Your task to perform on an android device: Clear the cart on amazon.com. Search for bose soundlink on amazon.com, select the first entry, add it to the cart, then select checkout. Image 0: 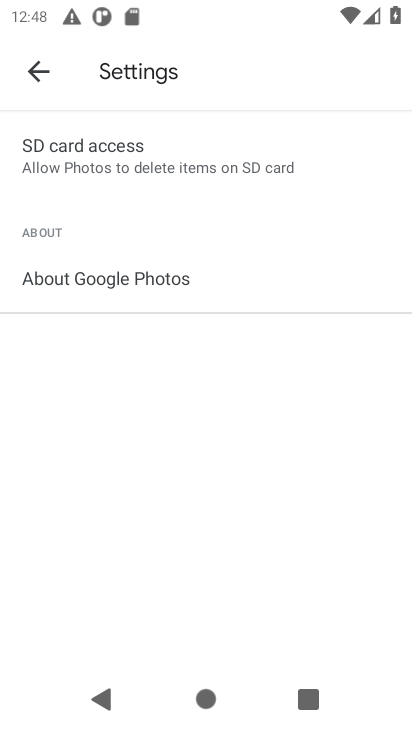
Step 0: press home button
Your task to perform on an android device: Clear the cart on amazon.com. Search for bose soundlink on amazon.com, select the first entry, add it to the cart, then select checkout. Image 1: 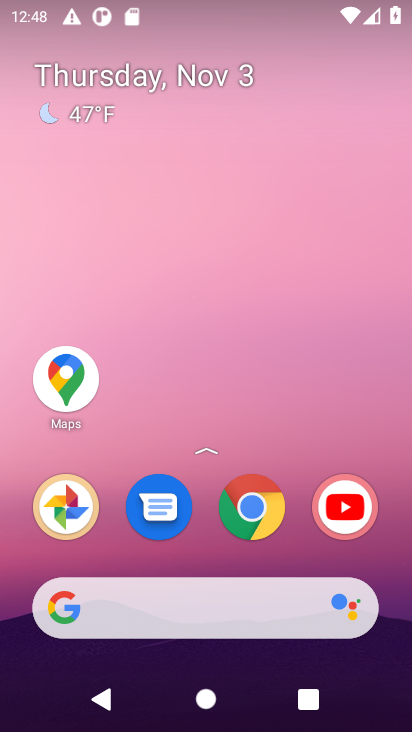
Step 1: click (192, 591)
Your task to perform on an android device: Clear the cart on amazon.com. Search for bose soundlink on amazon.com, select the first entry, add it to the cart, then select checkout. Image 2: 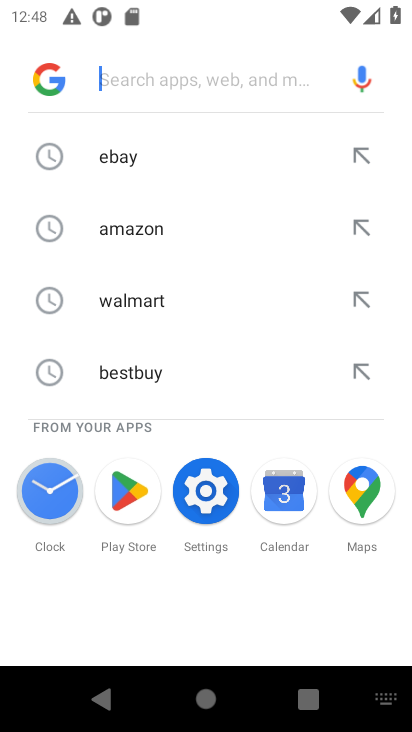
Step 2: type "amazon"
Your task to perform on an android device: Clear the cart on amazon.com. Search for bose soundlink on amazon.com, select the first entry, add it to the cart, then select checkout. Image 3: 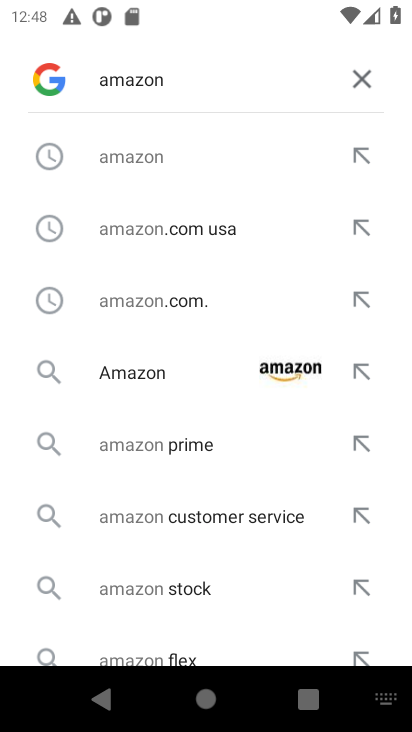
Step 3: click (172, 137)
Your task to perform on an android device: Clear the cart on amazon.com. Search for bose soundlink on amazon.com, select the first entry, add it to the cart, then select checkout. Image 4: 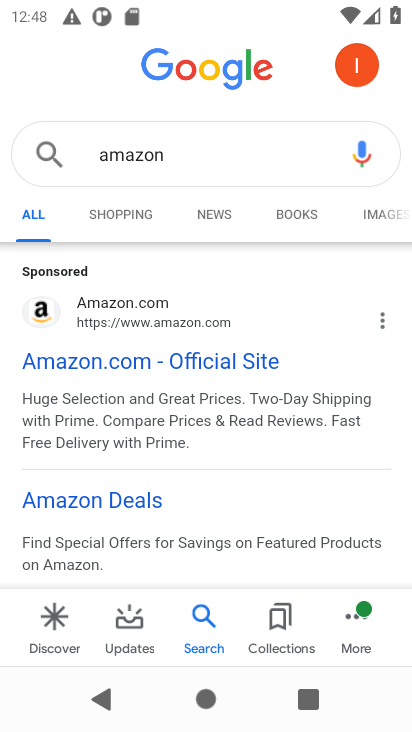
Step 4: click (145, 360)
Your task to perform on an android device: Clear the cart on amazon.com. Search for bose soundlink on amazon.com, select the first entry, add it to the cart, then select checkout. Image 5: 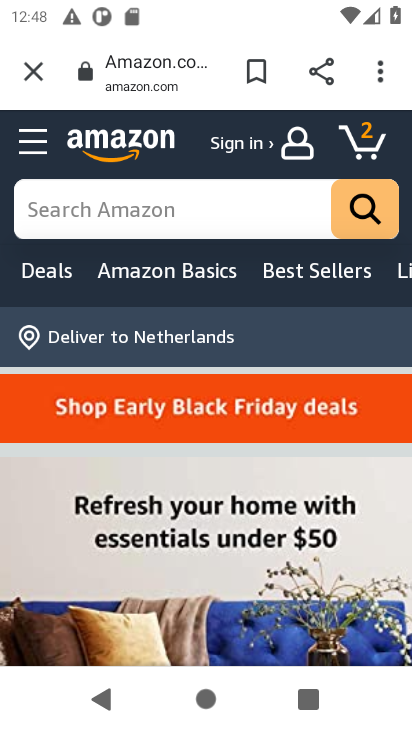
Step 5: click (107, 224)
Your task to perform on an android device: Clear the cart on amazon.com. Search for bose soundlink on amazon.com, select the first entry, add it to the cart, then select checkout. Image 6: 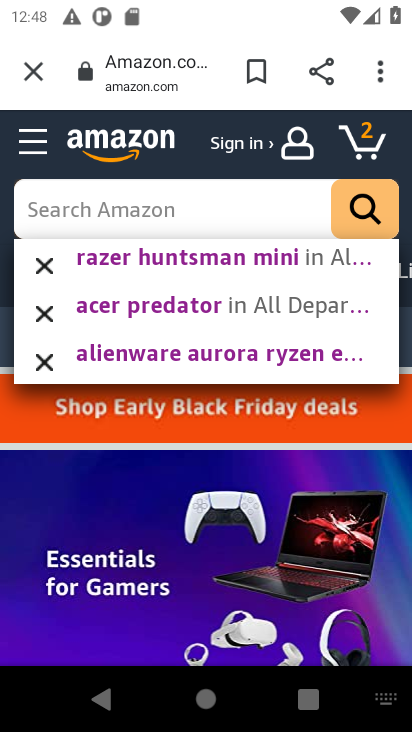
Step 6: type "bose soundllink"
Your task to perform on an android device: Clear the cart on amazon.com. Search for bose soundlink on amazon.com, select the first entry, add it to the cart, then select checkout. Image 7: 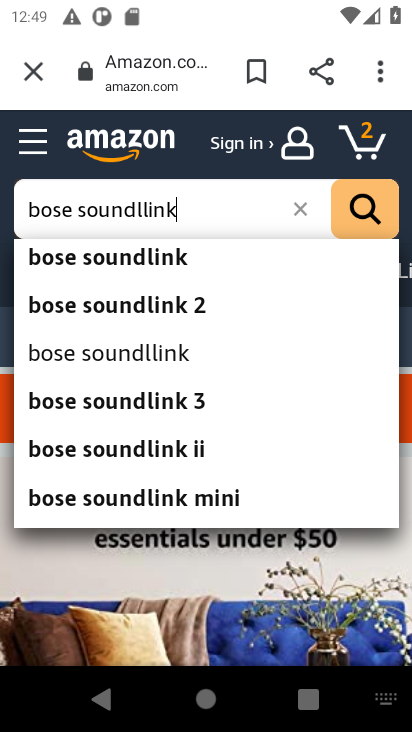
Step 7: click (102, 258)
Your task to perform on an android device: Clear the cart on amazon.com. Search for bose soundlink on amazon.com, select the first entry, add it to the cart, then select checkout. Image 8: 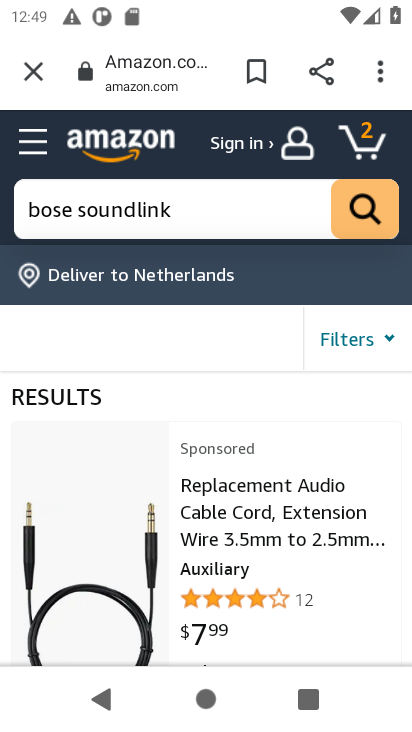
Step 8: click (237, 507)
Your task to perform on an android device: Clear the cart on amazon.com. Search for bose soundlink on amazon.com, select the first entry, add it to the cart, then select checkout. Image 9: 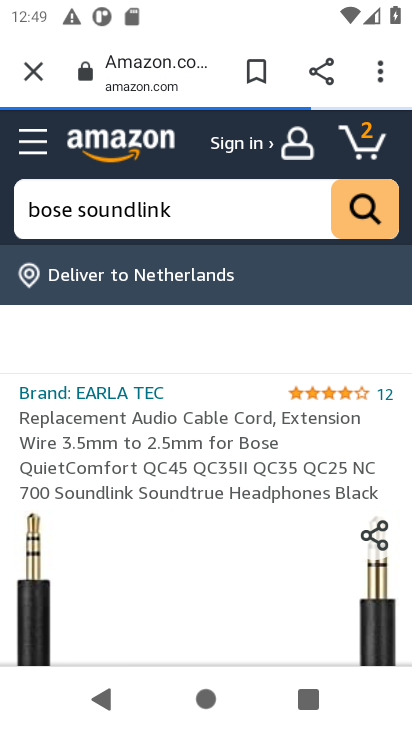
Step 9: drag from (237, 522) to (237, 107)
Your task to perform on an android device: Clear the cart on amazon.com. Search for bose soundlink on amazon.com, select the first entry, add it to the cart, then select checkout. Image 10: 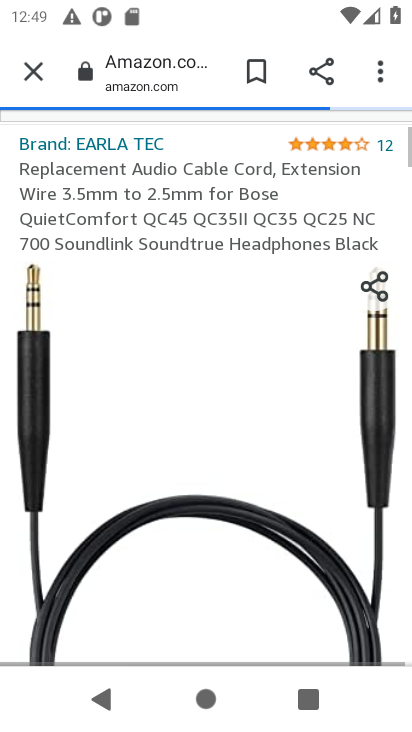
Step 10: drag from (256, 507) to (260, 110)
Your task to perform on an android device: Clear the cart on amazon.com. Search for bose soundlink on amazon.com, select the first entry, add it to the cart, then select checkout. Image 11: 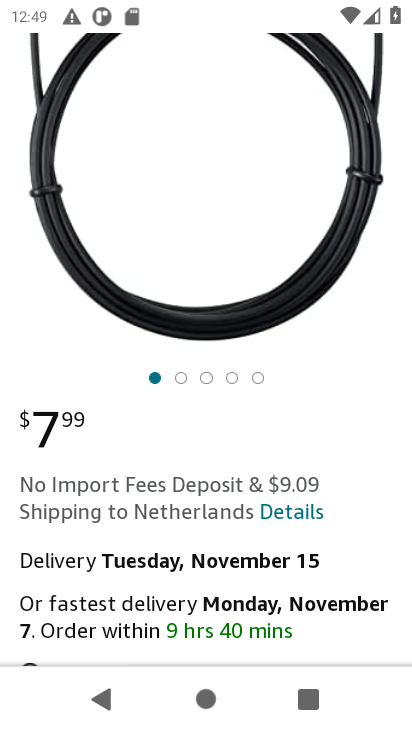
Step 11: drag from (265, 473) to (271, 95)
Your task to perform on an android device: Clear the cart on amazon.com. Search for bose soundlink on amazon.com, select the first entry, add it to the cart, then select checkout. Image 12: 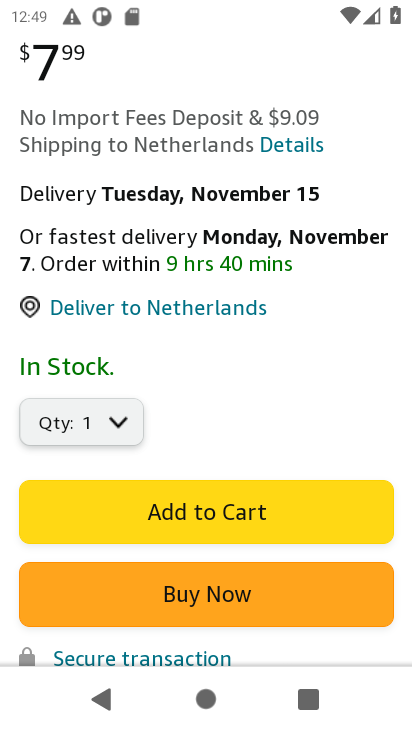
Step 12: click (262, 524)
Your task to perform on an android device: Clear the cart on amazon.com. Search for bose soundlink on amazon.com, select the first entry, add it to the cart, then select checkout. Image 13: 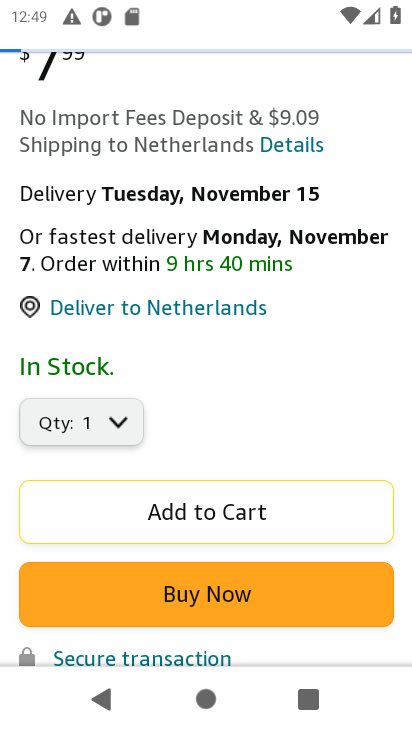
Step 13: task complete